Your task to perform on an android device: toggle show notifications on the lock screen Image 0: 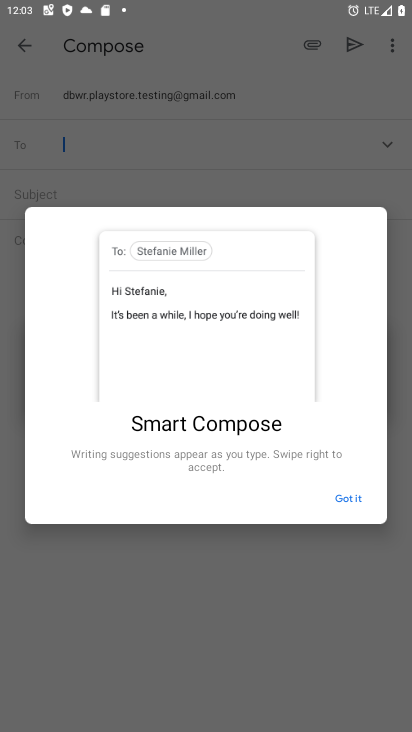
Step 0: press back button
Your task to perform on an android device: toggle show notifications on the lock screen Image 1: 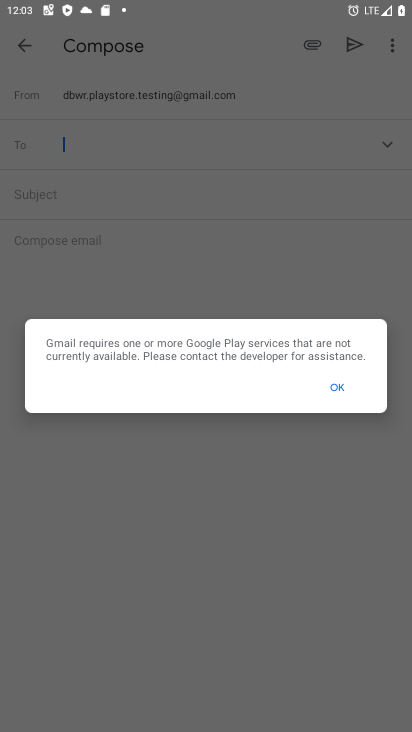
Step 1: press home button
Your task to perform on an android device: toggle show notifications on the lock screen Image 2: 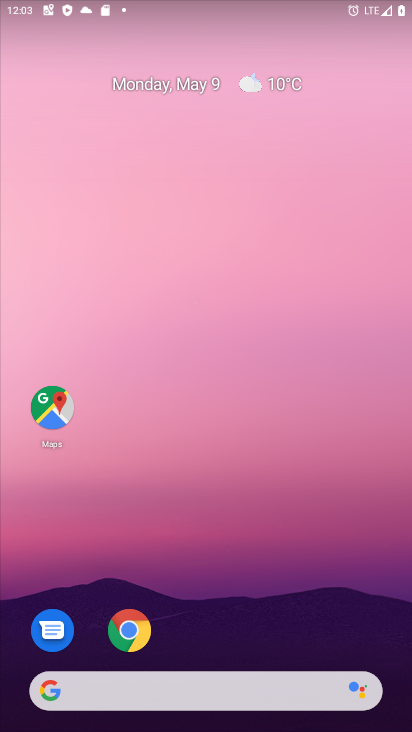
Step 2: drag from (343, 601) to (333, 59)
Your task to perform on an android device: toggle show notifications on the lock screen Image 3: 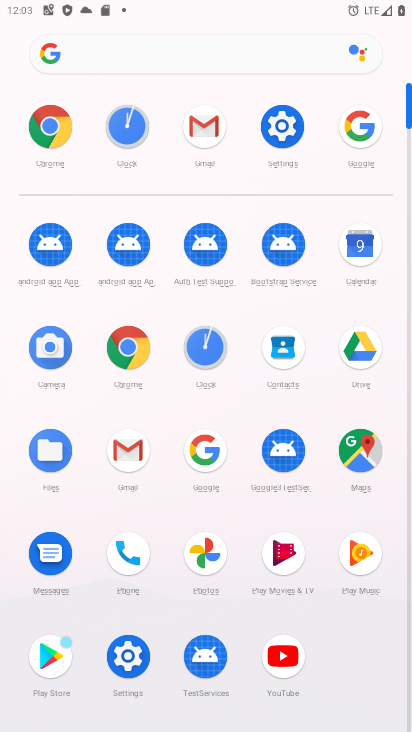
Step 3: click (266, 132)
Your task to perform on an android device: toggle show notifications on the lock screen Image 4: 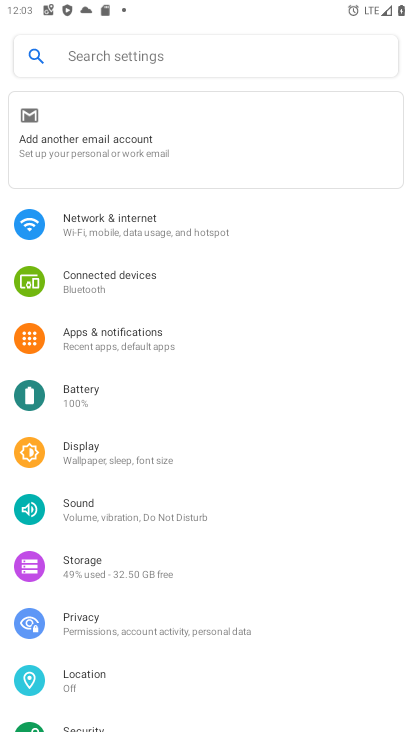
Step 4: click (200, 338)
Your task to perform on an android device: toggle show notifications on the lock screen Image 5: 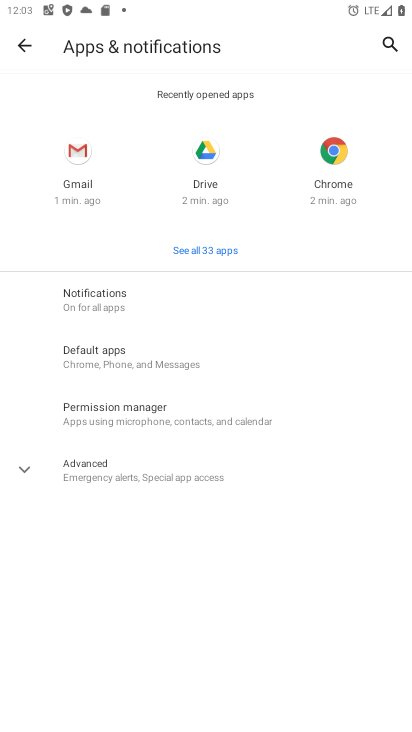
Step 5: click (145, 311)
Your task to perform on an android device: toggle show notifications on the lock screen Image 6: 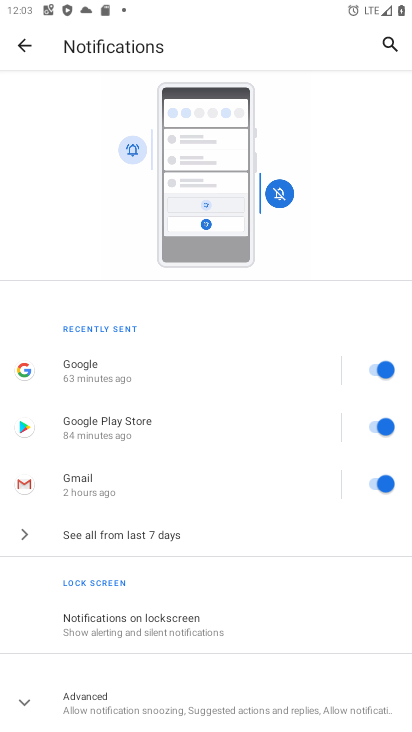
Step 6: click (126, 624)
Your task to perform on an android device: toggle show notifications on the lock screen Image 7: 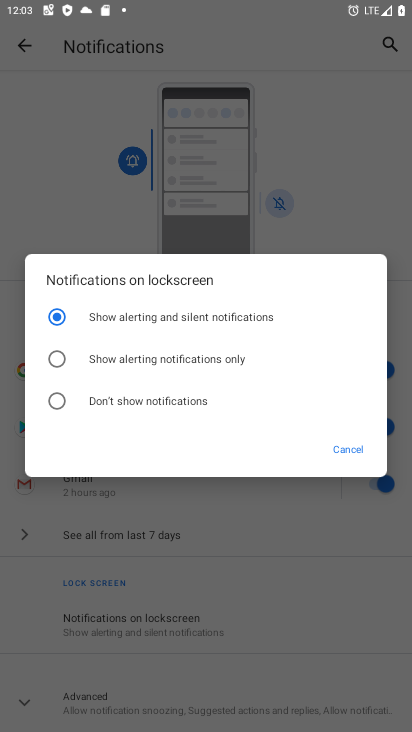
Step 7: click (100, 348)
Your task to perform on an android device: toggle show notifications on the lock screen Image 8: 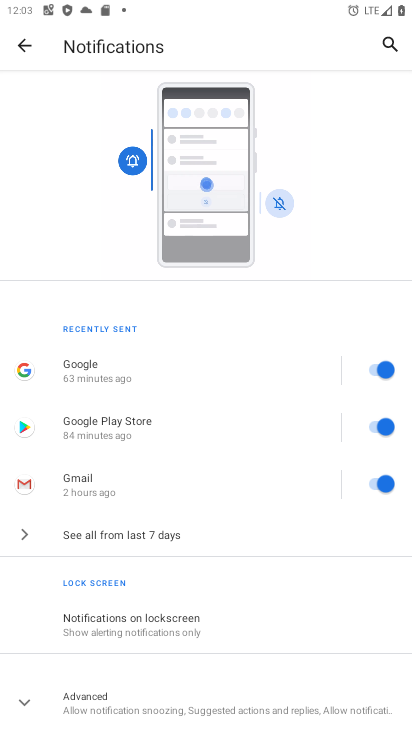
Step 8: task complete